Your task to perform on an android device: Open ESPN.com Image 0: 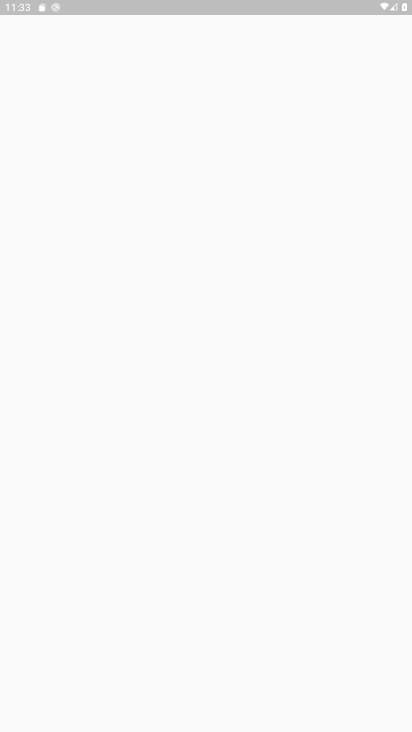
Step 0: press home button
Your task to perform on an android device: Open ESPN.com Image 1: 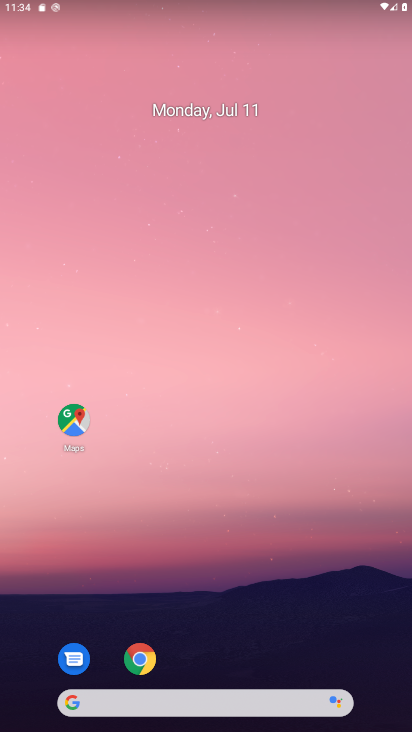
Step 1: drag from (284, 654) to (211, 114)
Your task to perform on an android device: Open ESPN.com Image 2: 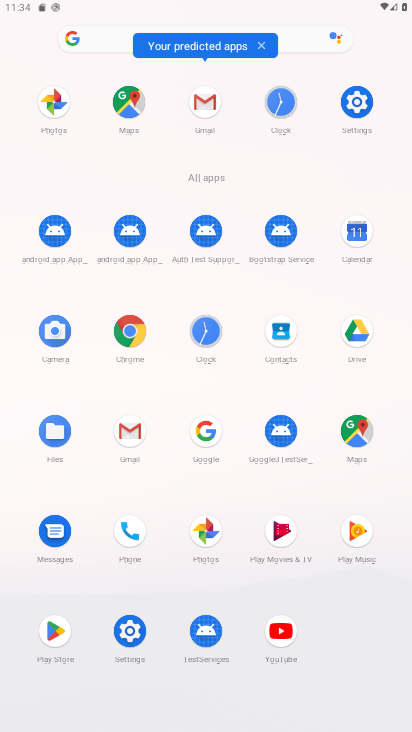
Step 2: click (138, 341)
Your task to perform on an android device: Open ESPN.com Image 3: 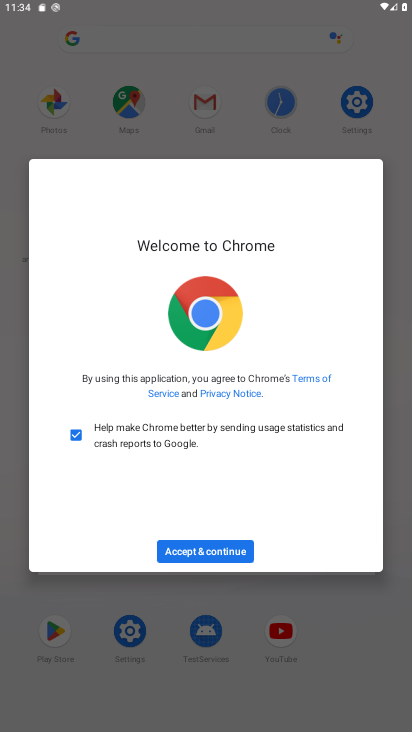
Step 3: click (239, 551)
Your task to perform on an android device: Open ESPN.com Image 4: 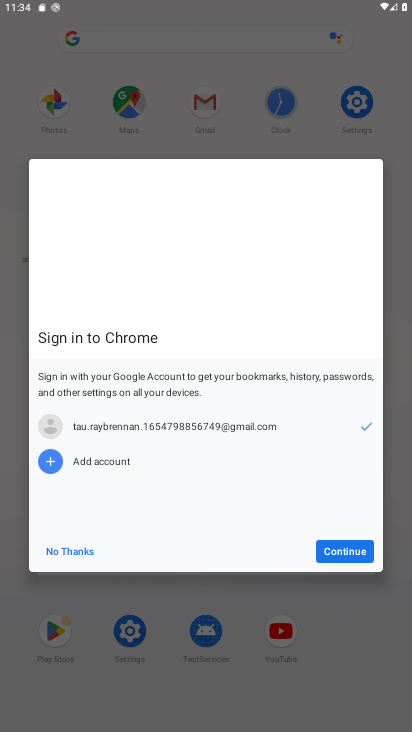
Step 4: click (360, 556)
Your task to perform on an android device: Open ESPN.com Image 5: 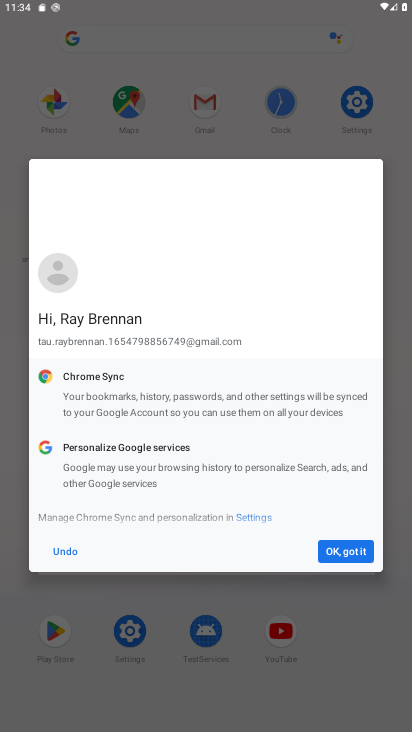
Step 5: click (360, 556)
Your task to perform on an android device: Open ESPN.com Image 6: 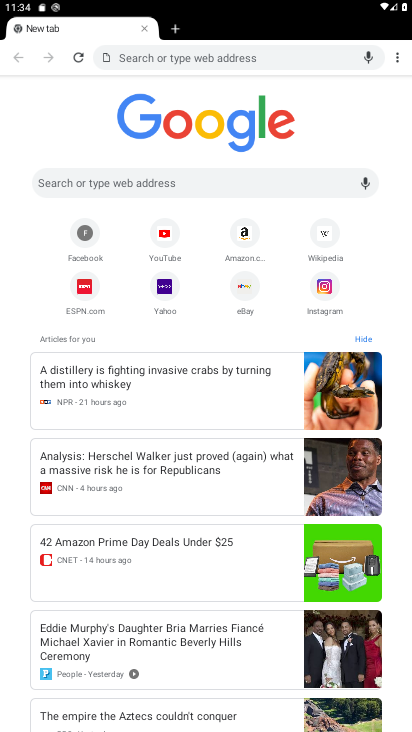
Step 6: click (76, 297)
Your task to perform on an android device: Open ESPN.com Image 7: 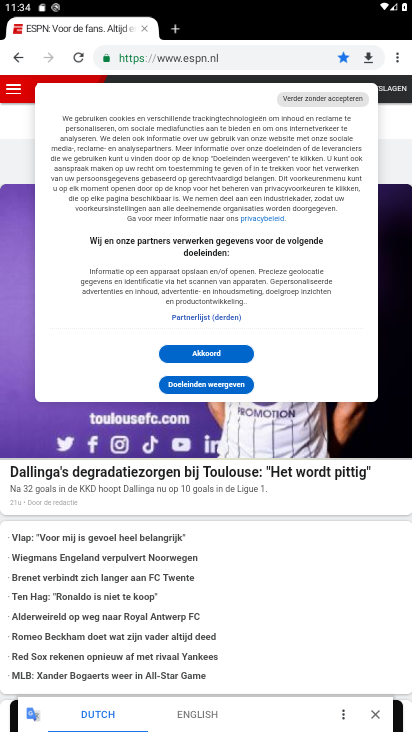
Step 7: task complete